Your task to perform on an android device: Go to notification settings Image 0: 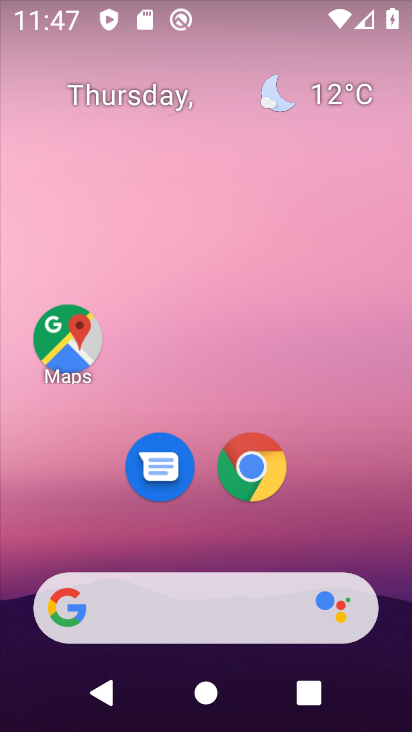
Step 0: drag from (330, 486) to (384, 55)
Your task to perform on an android device: Go to notification settings Image 1: 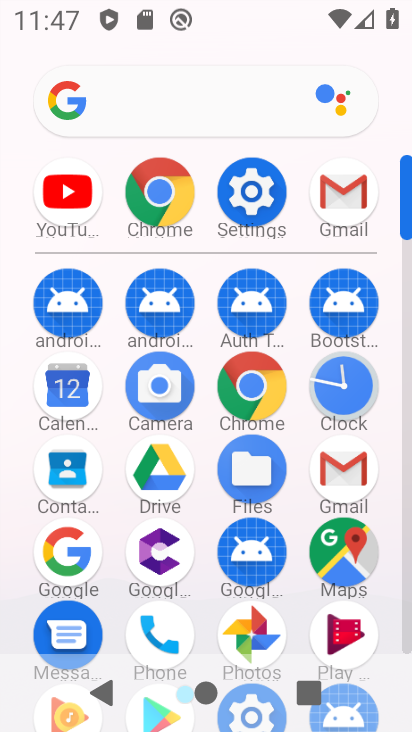
Step 1: click (260, 197)
Your task to perform on an android device: Go to notification settings Image 2: 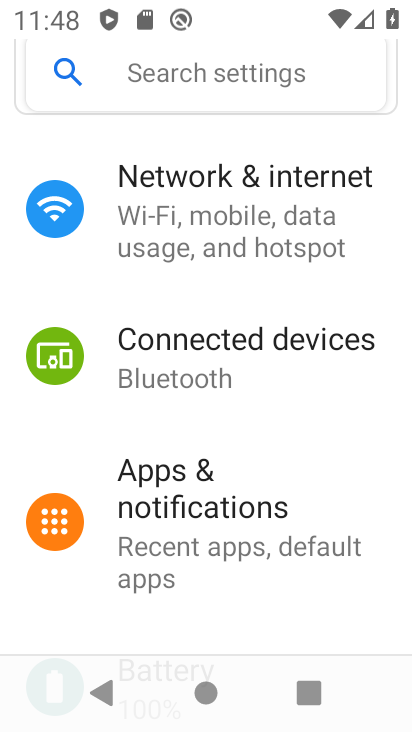
Step 2: drag from (245, 251) to (190, 534)
Your task to perform on an android device: Go to notification settings Image 3: 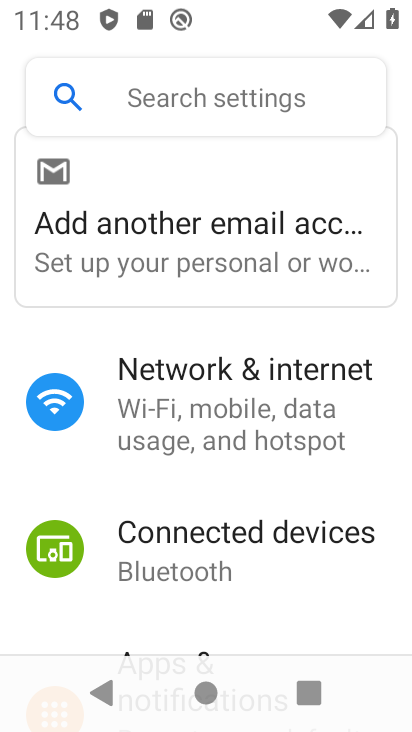
Step 3: drag from (193, 496) to (249, 253)
Your task to perform on an android device: Go to notification settings Image 4: 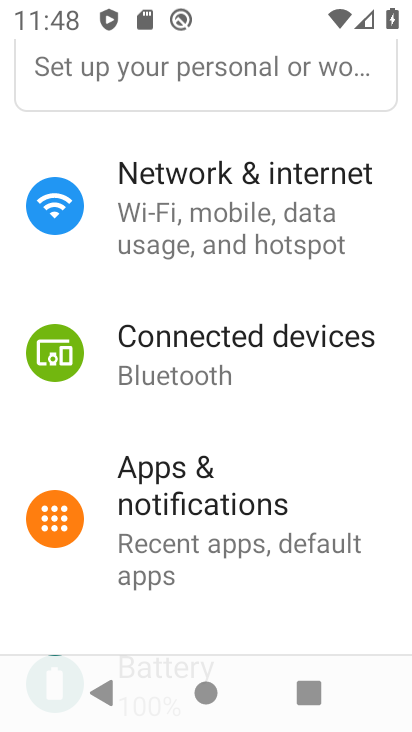
Step 4: drag from (194, 384) to (239, 238)
Your task to perform on an android device: Go to notification settings Image 5: 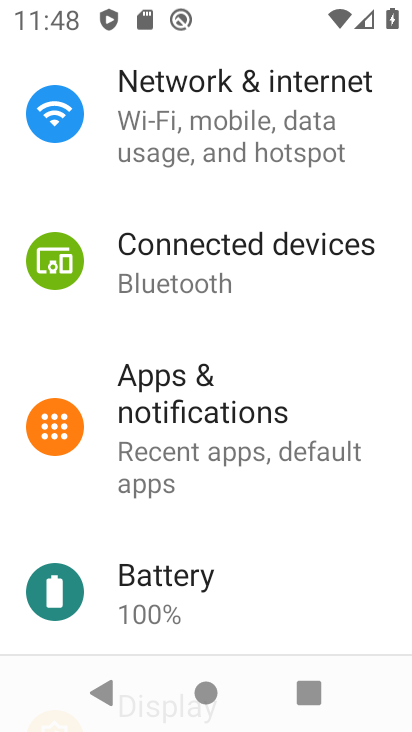
Step 5: click (168, 402)
Your task to perform on an android device: Go to notification settings Image 6: 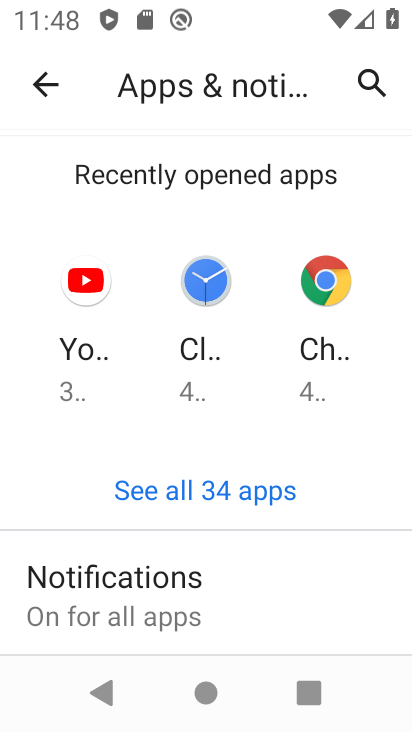
Step 6: task complete